Your task to perform on an android device: install app "Indeed Job Search" Image 0: 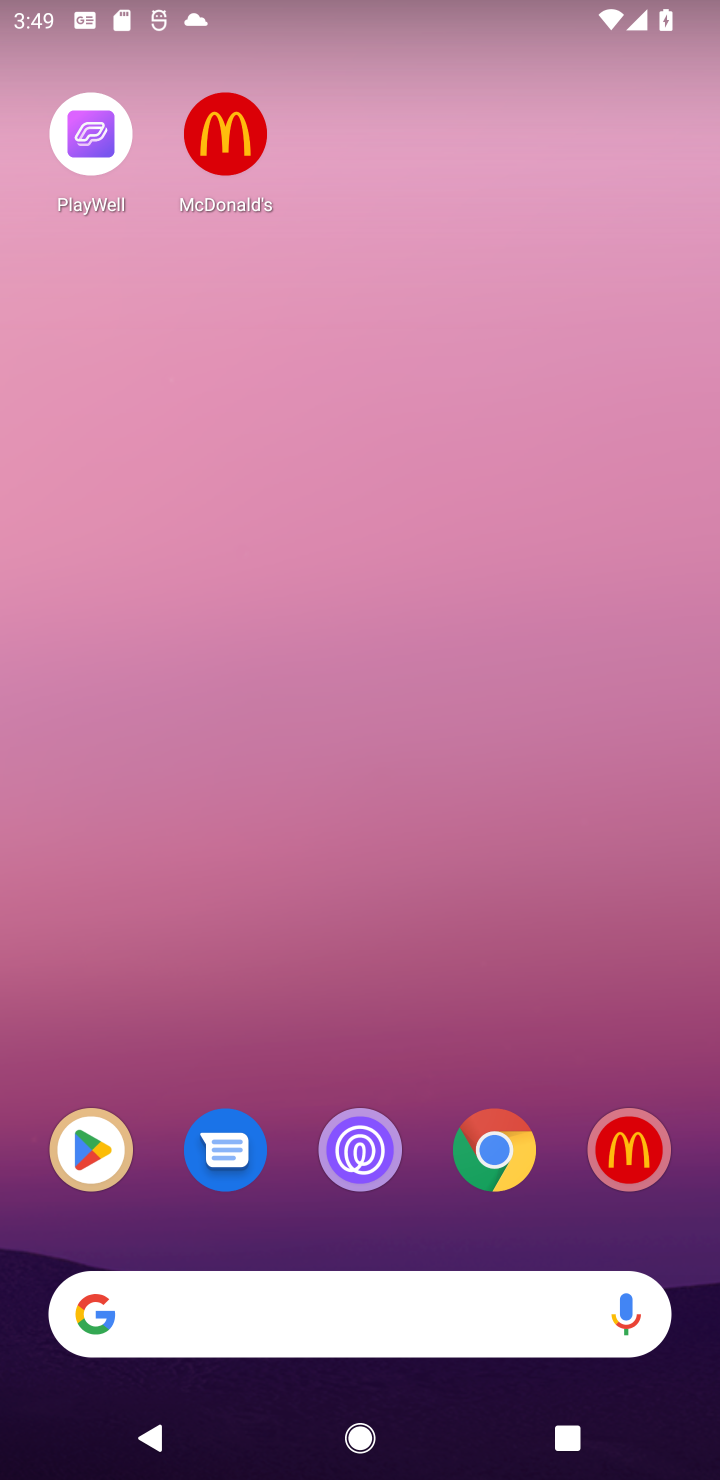
Step 0: drag from (300, 1236) to (329, 588)
Your task to perform on an android device: install app "Indeed Job Search" Image 1: 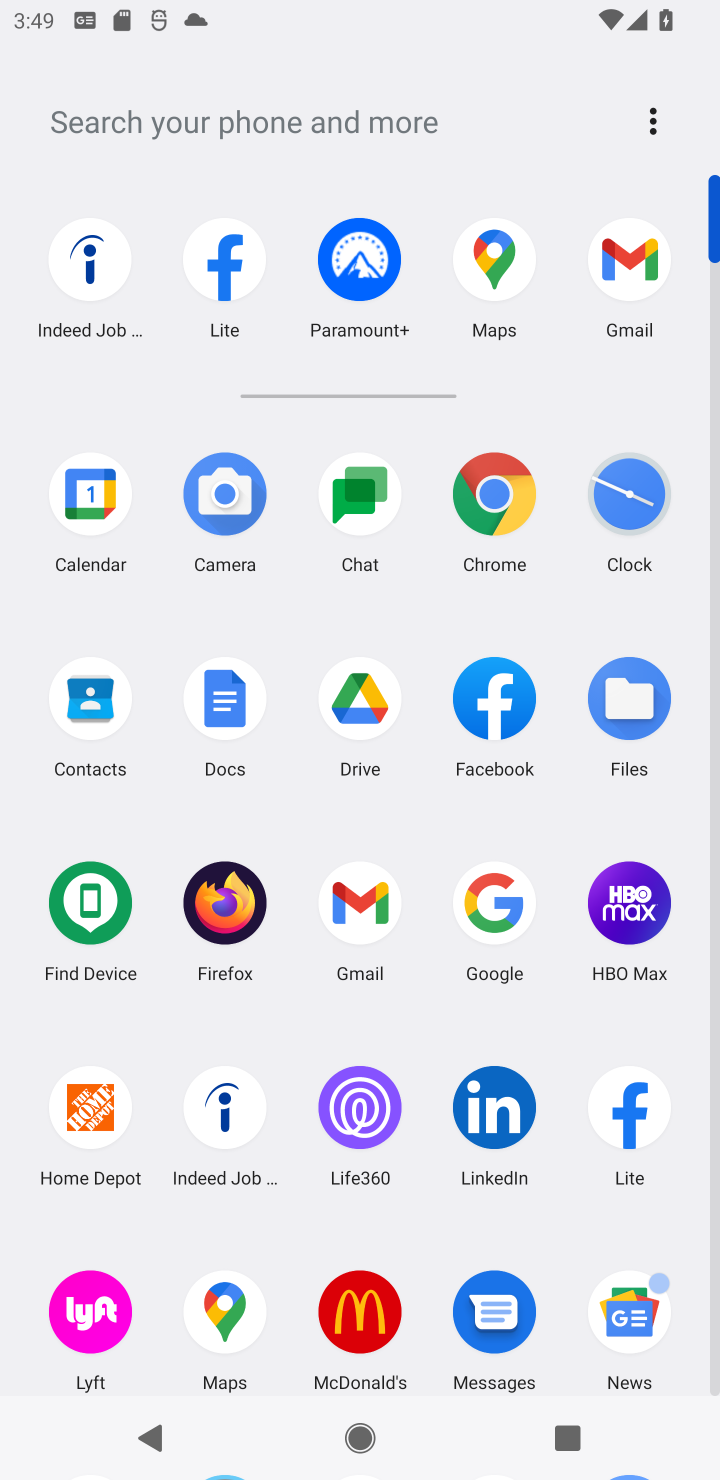
Step 1: click (232, 1120)
Your task to perform on an android device: install app "Indeed Job Search" Image 2: 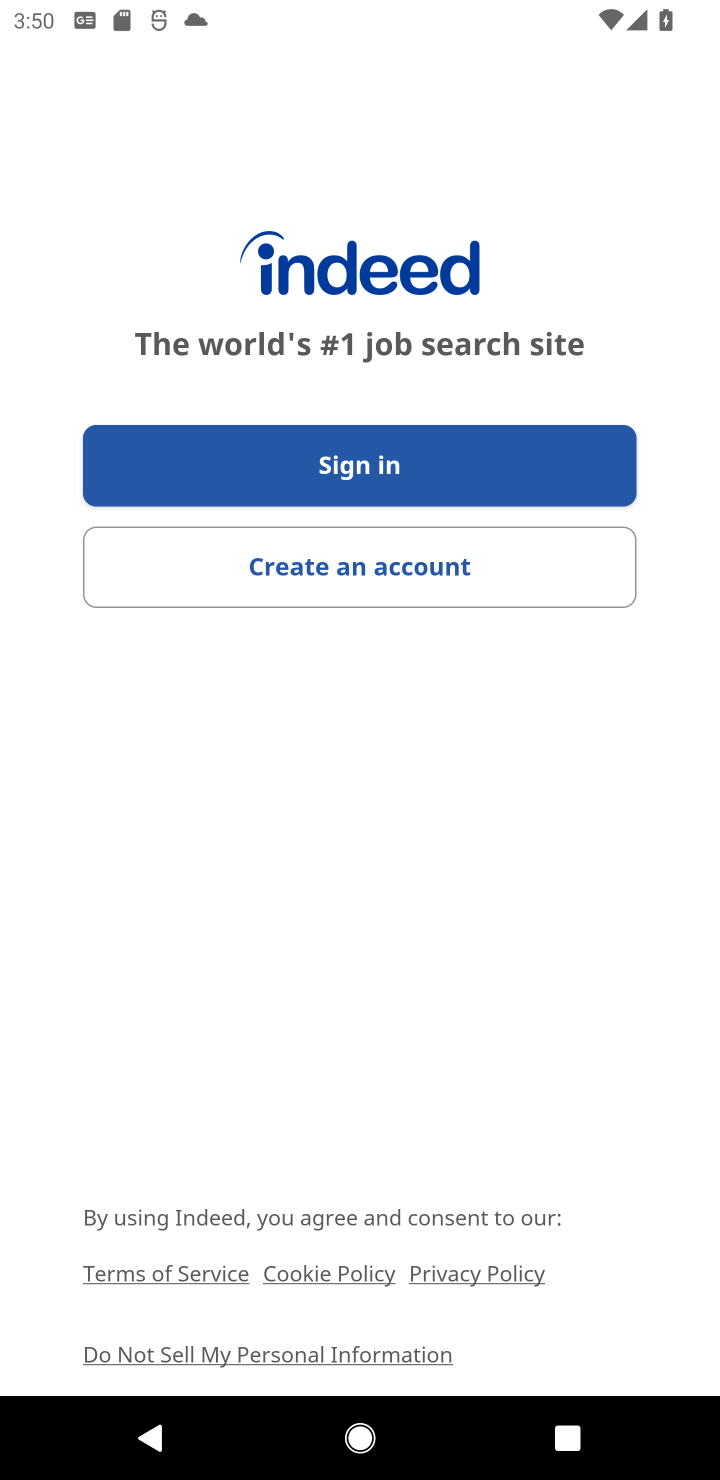
Step 2: task complete